Your task to perform on an android device: turn off priority inbox in the gmail app Image 0: 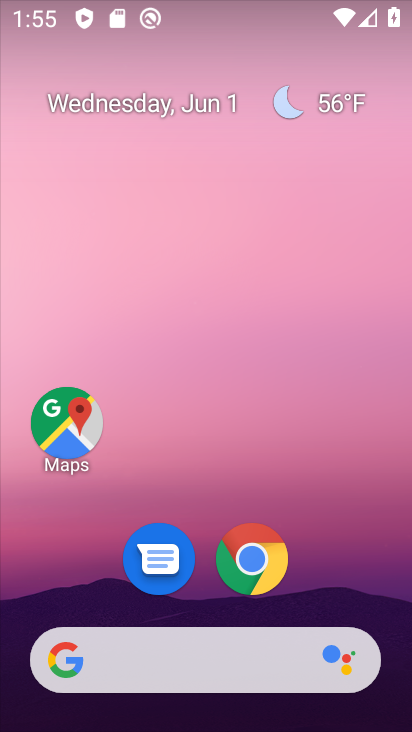
Step 0: drag from (341, 549) to (251, 100)
Your task to perform on an android device: turn off priority inbox in the gmail app Image 1: 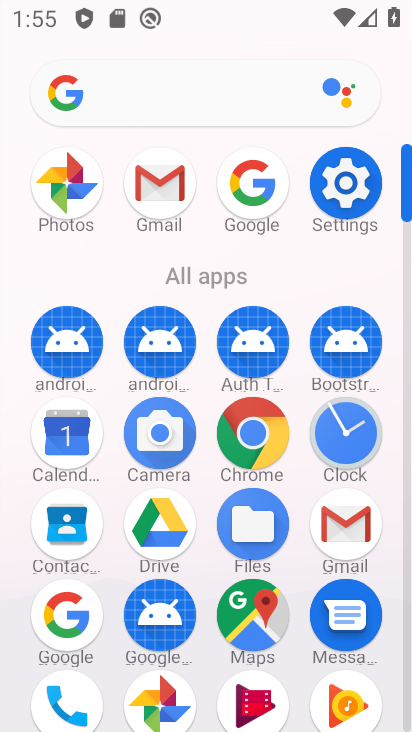
Step 1: click (157, 181)
Your task to perform on an android device: turn off priority inbox in the gmail app Image 2: 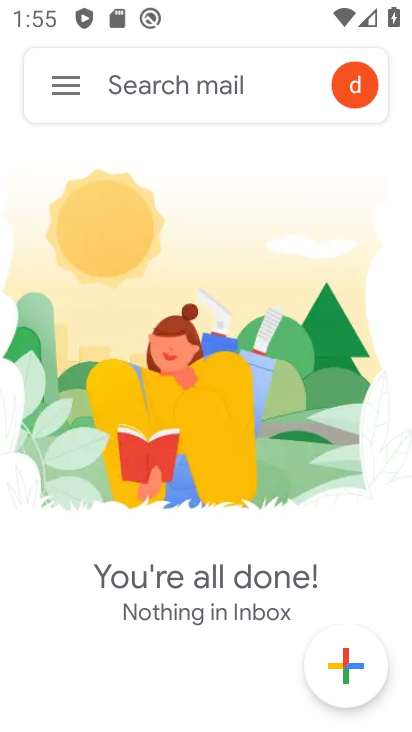
Step 2: click (63, 78)
Your task to perform on an android device: turn off priority inbox in the gmail app Image 3: 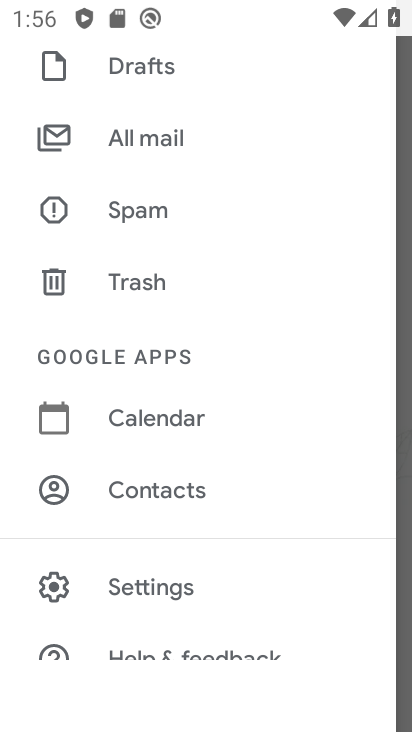
Step 3: drag from (177, 495) to (221, 420)
Your task to perform on an android device: turn off priority inbox in the gmail app Image 4: 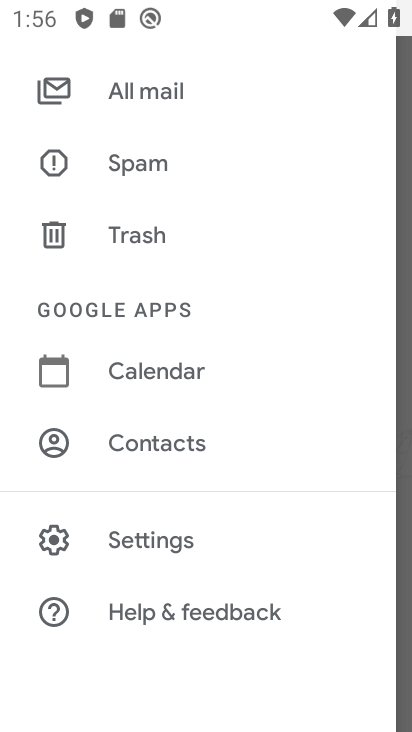
Step 4: click (187, 530)
Your task to perform on an android device: turn off priority inbox in the gmail app Image 5: 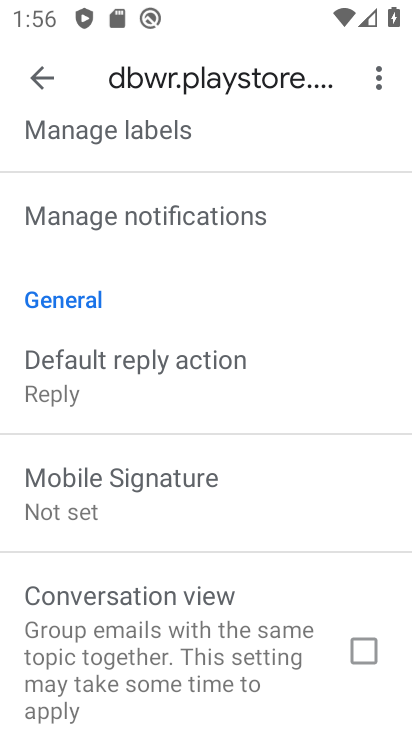
Step 5: drag from (186, 250) to (149, 415)
Your task to perform on an android device: turn off priority inbox in the gmail app Image 6: 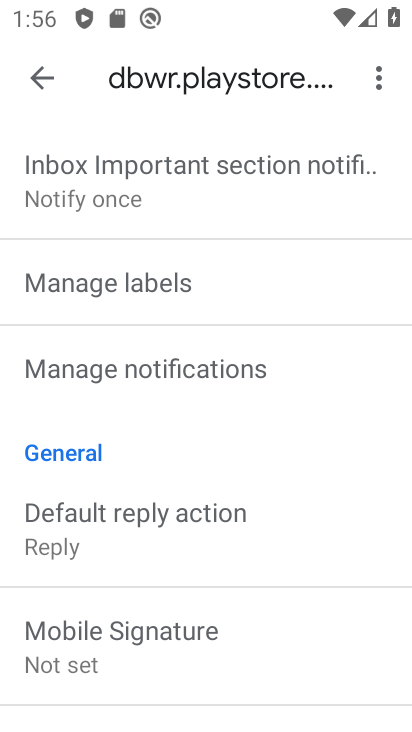
Step 6: drag from (191, 196) to (164, 337)
Your task to perform on an android device: turn off priority inbox in the gmail app Image 7: 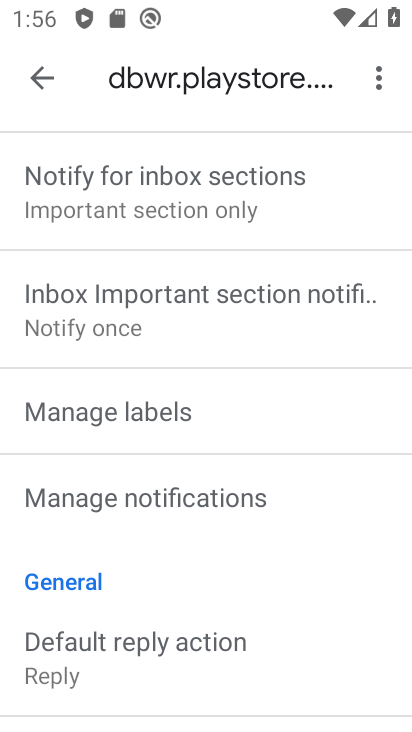
Step 7: drag from (192, 157) to (193, 301)
Your task to perform on an android device: turn off priority inbox in the gmail app Image 8: 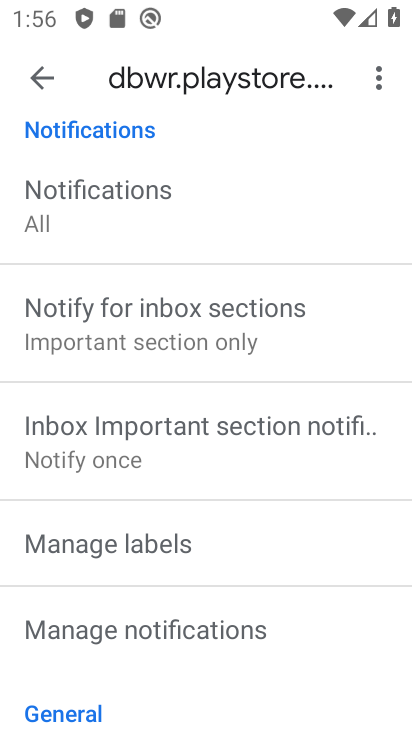
Step 8: drag from (208, 176) to (219, 296)
Your task to perform on an android device: turn off priority inbox in the gmail app Image 9: 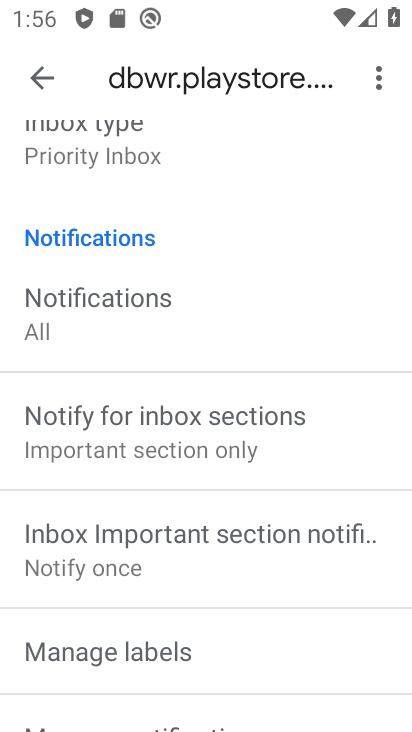
Step 9: drag from (226, 195) to (246, 297)
Your task to perform on an android device: turn off priority inbox in the gmail app Image 10: 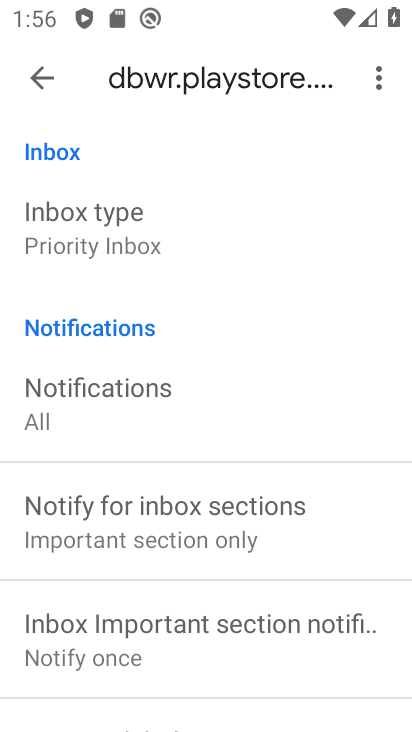
Step 10: click (163, 232)
Your task to perform on an android device: turn off priority inbox in the gmail app Image 11: 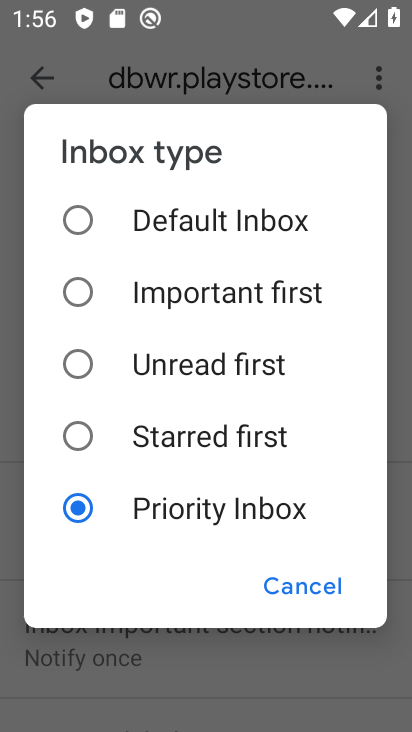
Step 11: click (73, 215)
Your task to perform on an android device: turn off priority inbox in the gmail app Image 12: 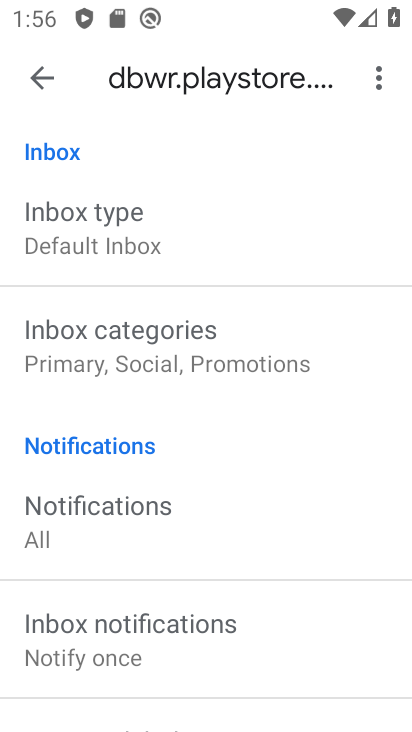
Step 12: task complete